Your task to perform on an android device: visit the assistant section in the google photos Image 0: 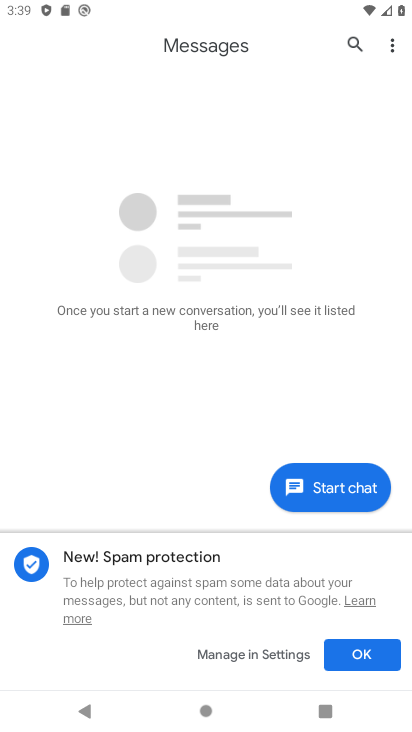
Step 0: press home button
Your task to perform on an android device: visit the assistant section in the google photos Image 1: 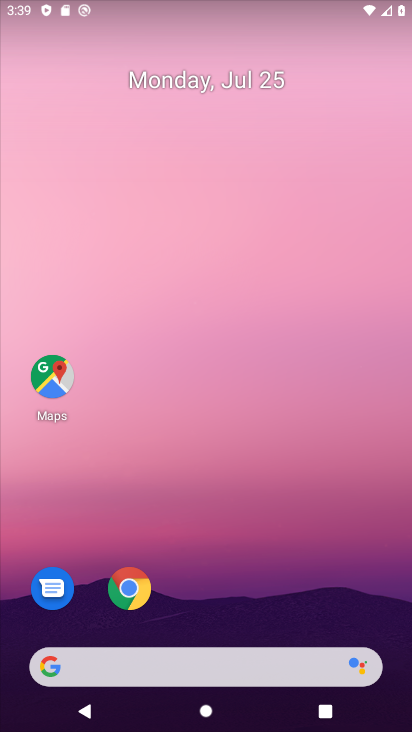
Step 1: drag from (225, 723) to (230, 196)
Your task to perform on an android device: visit the assistant section in the google photos Image 2: 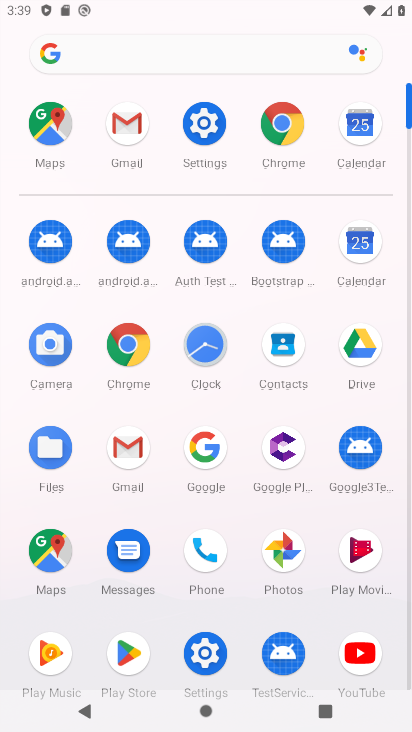
Step 2: click (268, 549)
Your task to perform on an android device: visit the assistant section in the google photos Image 3: 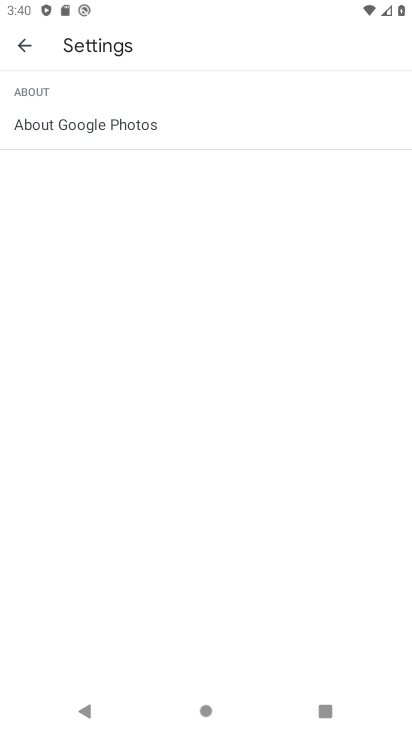
Step 3: click (25, 45)
Your task to perform on an android device: visit the assistant section in the google photos Image 4: 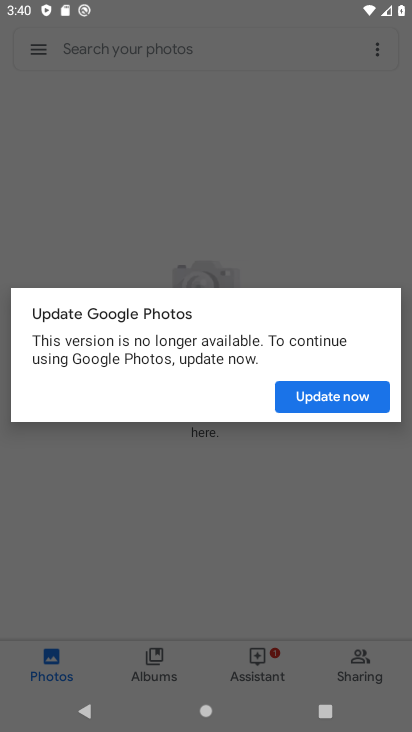
Step 4: task complete